Your task to perform on an android device: Go to accessibility settings Image 0: 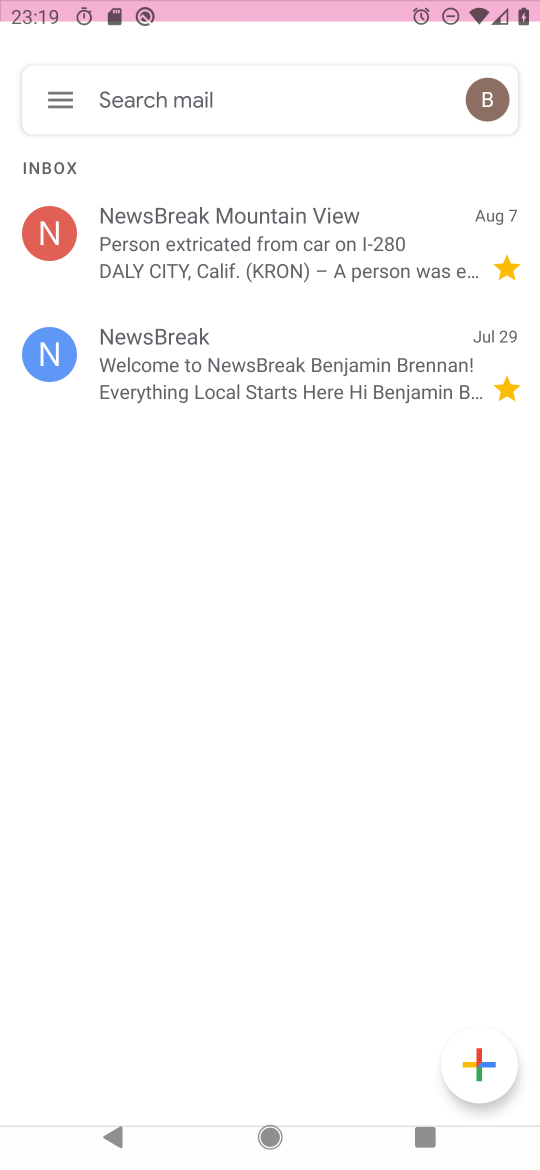
Step 0: click (359, 437)
Your task to perform on an android device: Go to accessibility settings Image 1: 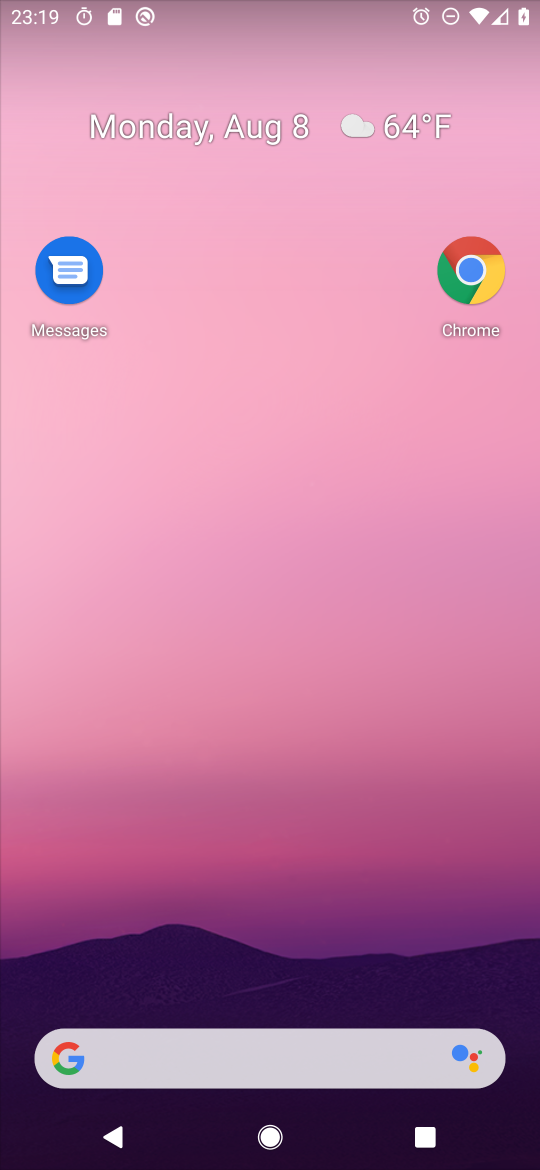
Step 1: drag from (257, 890) to (387, 260)
Your task to perform on an android device: Go to accessibility settings Image 2: 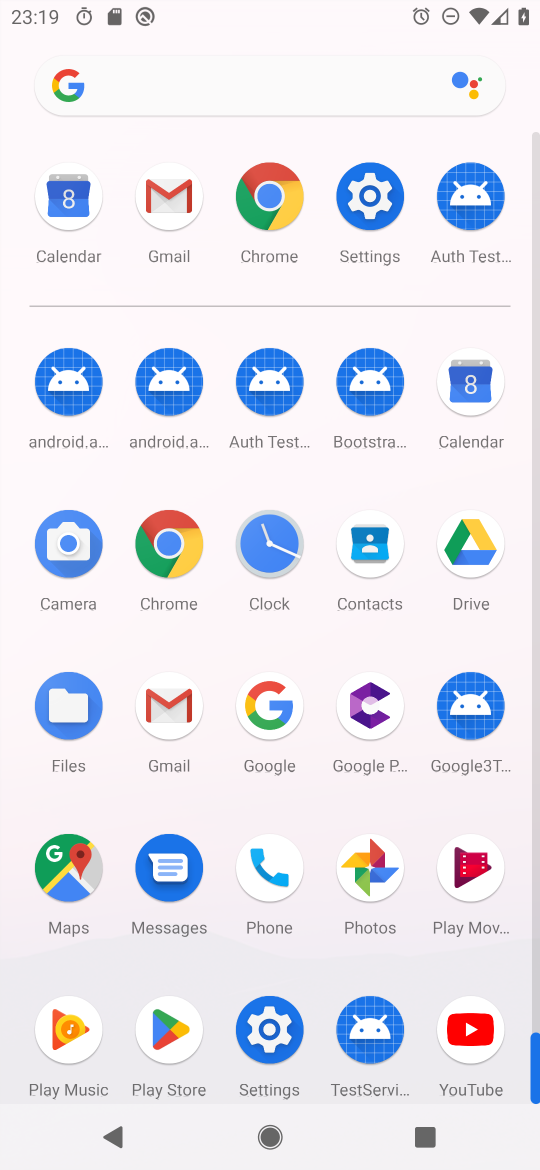
Step 2: click (285, 1024)
Your task to perform on an android device: Go to accessibility settings Image 3: 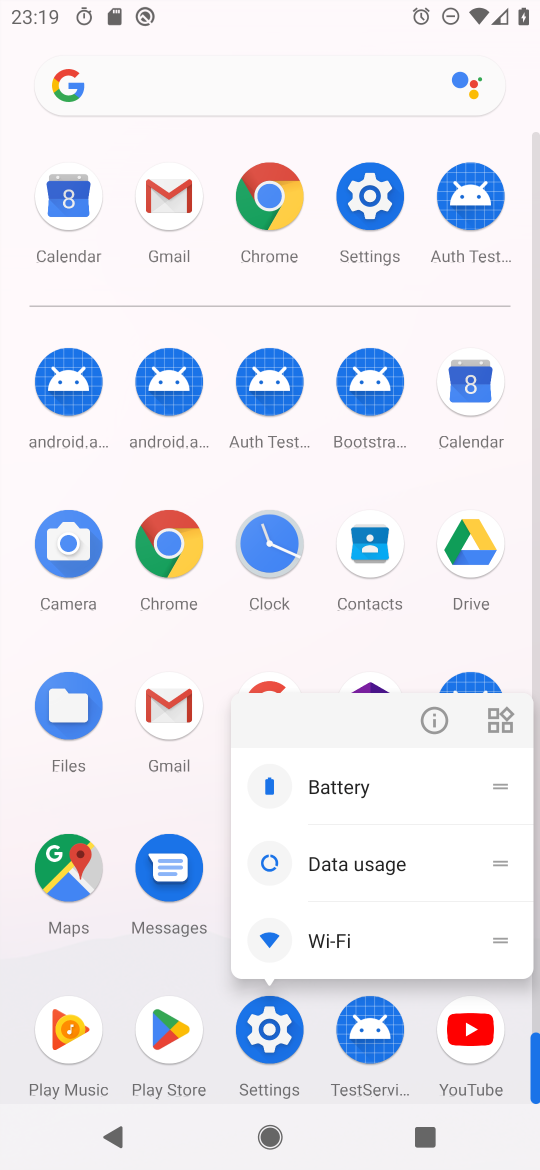
Step 3: click (424, 713)
Your task to perform on an android device: Go to accessibility settings Image 4: 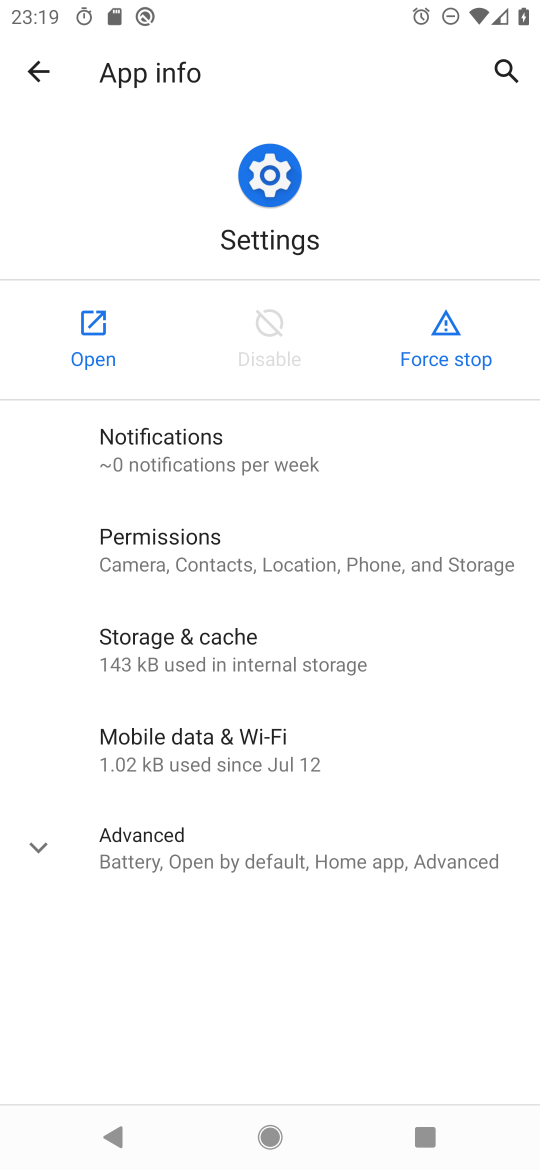
Step 4: click (100, 330)
Your task to perform on an android device: Go to accessibility settings Image 5: 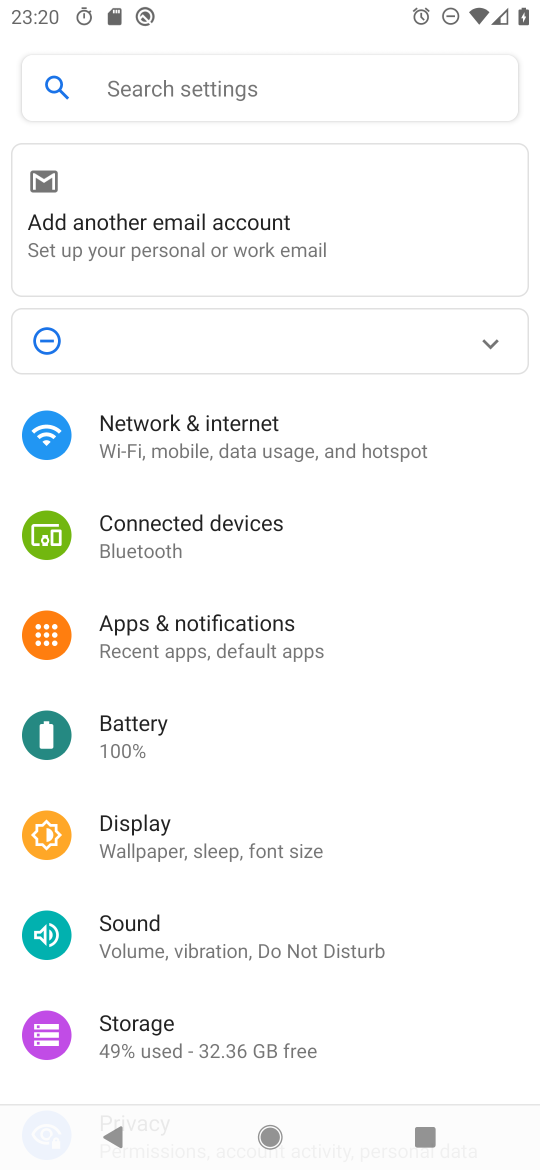
Step 5: drag from (237, 914) to (490, 0)
Your task to perform on an android device: Go to accessibility settings Image 6: 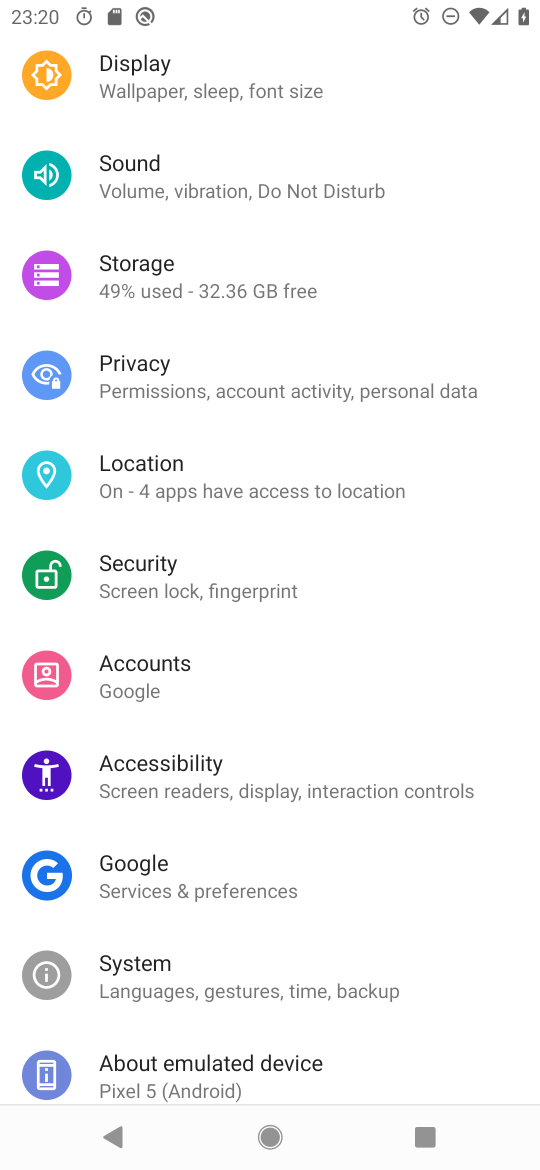
Step 6: click (179, 770)
Your task to perform on an android device: Go to accessibility settings Image 7: 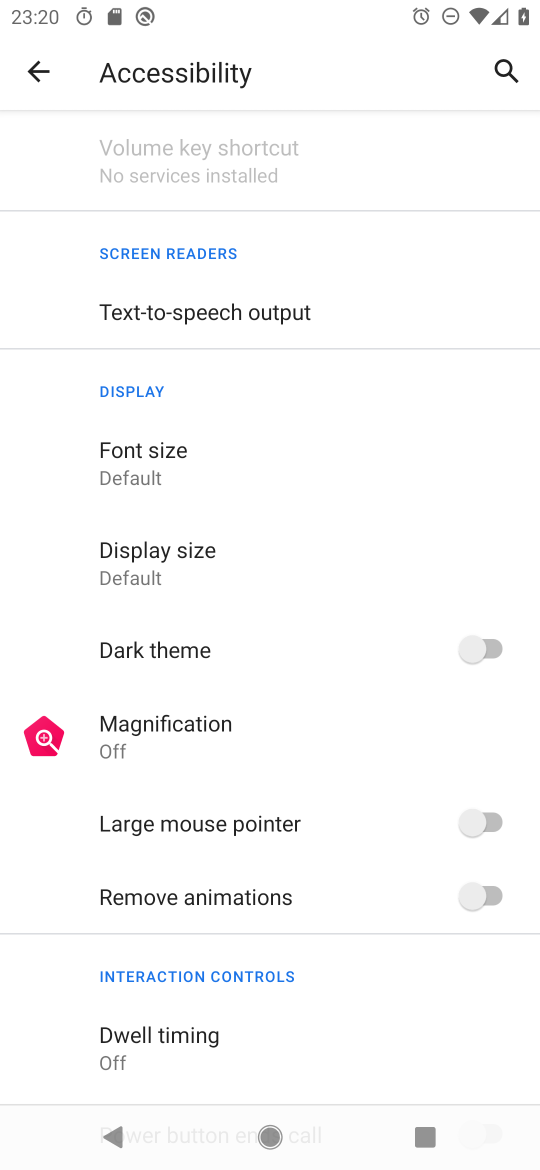
Step 7: task complete